Your task to perform on an android device: Open the calendar and show me this week's events? Image 0: 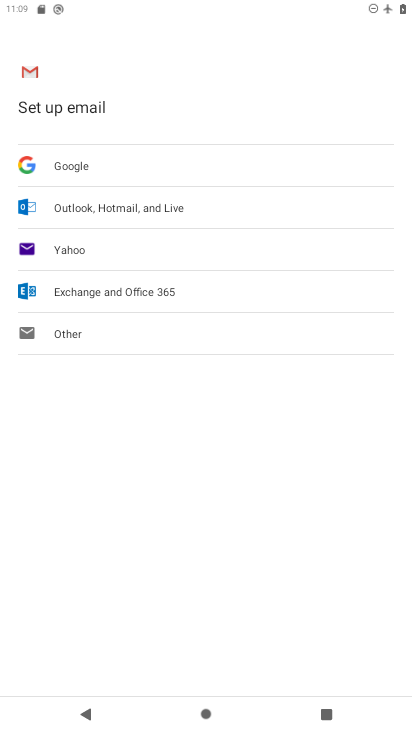
Step 0: press home button
Your task to perform on an android device: Open the calendar and show me this week's events? Image 1: 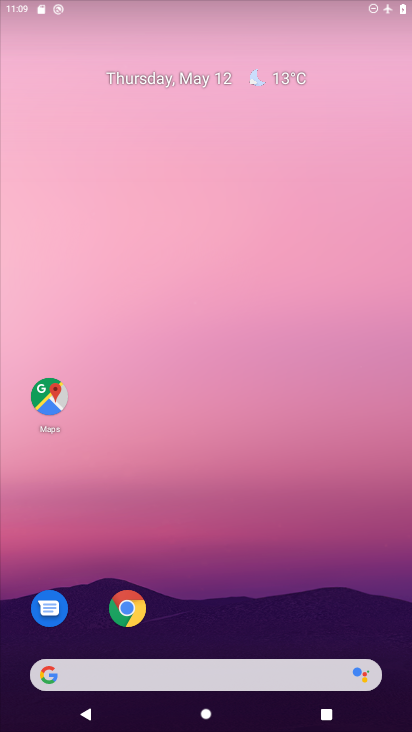
Step 1: drag from (260, 591) to (265, 129)
Your task to perform on an android device: Open the calendar and show me this week's events? Image 2: 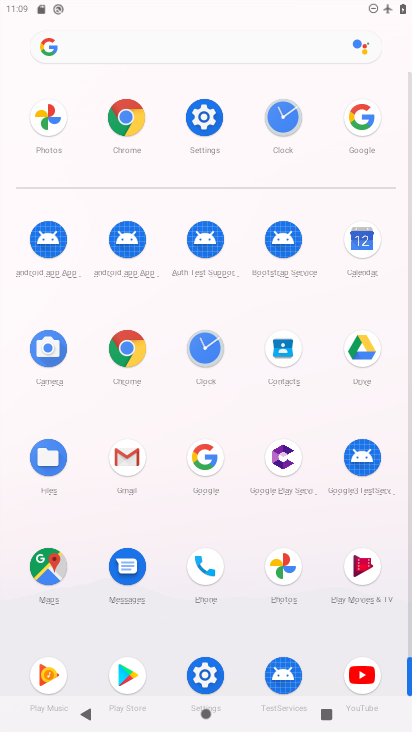
Step 2: click (359, 239)
Your task to perform on an android device: Open the calendar and show me this week's events? Image 3: 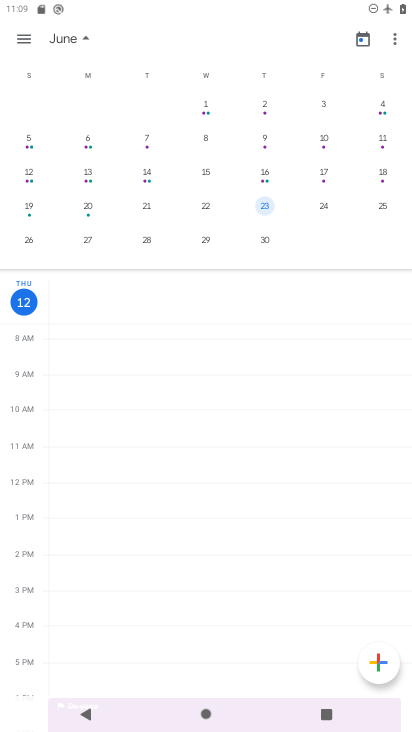
Step 3: drag from (86, 257) to (381, 227)
Your task to perform on an android device: Open the calendar and show me this week's events? Image 4: 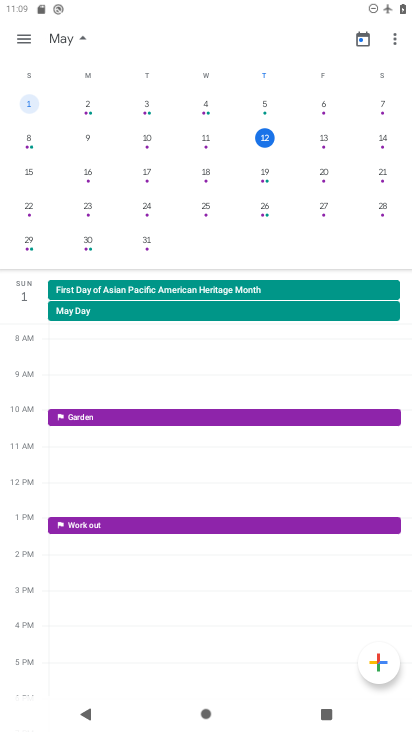
Step 4: click (206, 171)
Your task to perform on an android device: Open the calendar and show me this week's events? Image 5: 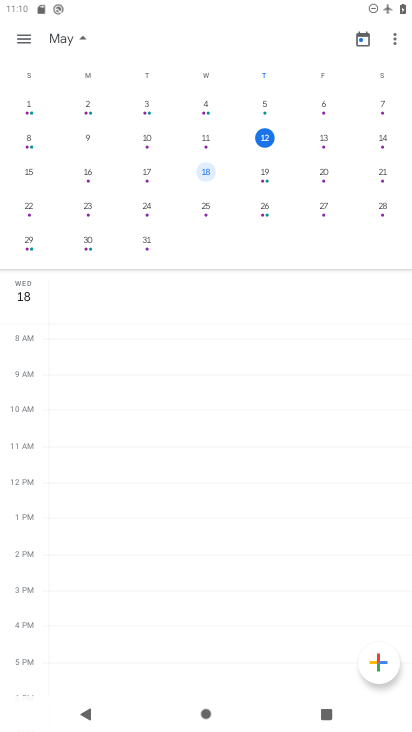
Step 5: task complete